Your task to perform on an android device: What is the news today? Image 0: 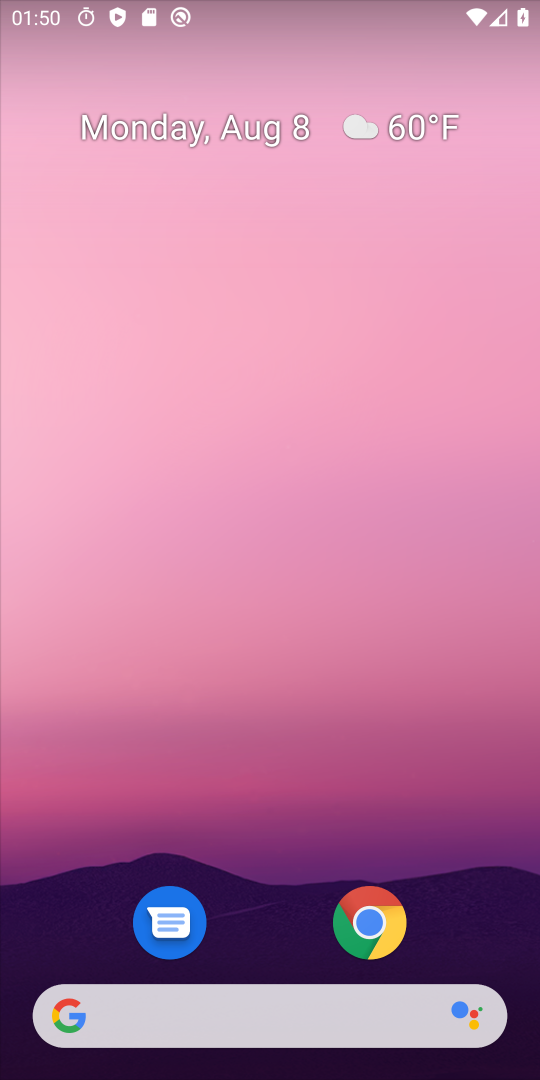
Step 0: drag from (281, 904) to (270, 102)
Your task to perform on an android device: What is the news today? Image 1: 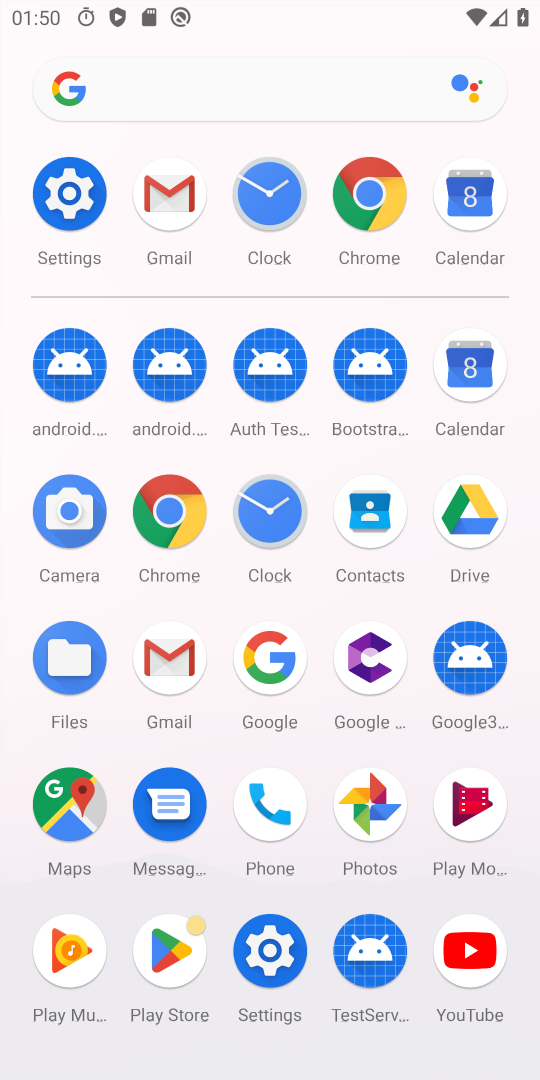
Step 1: click (166, 511)
Your task to perform on an android device: What is the news today? Image 2: 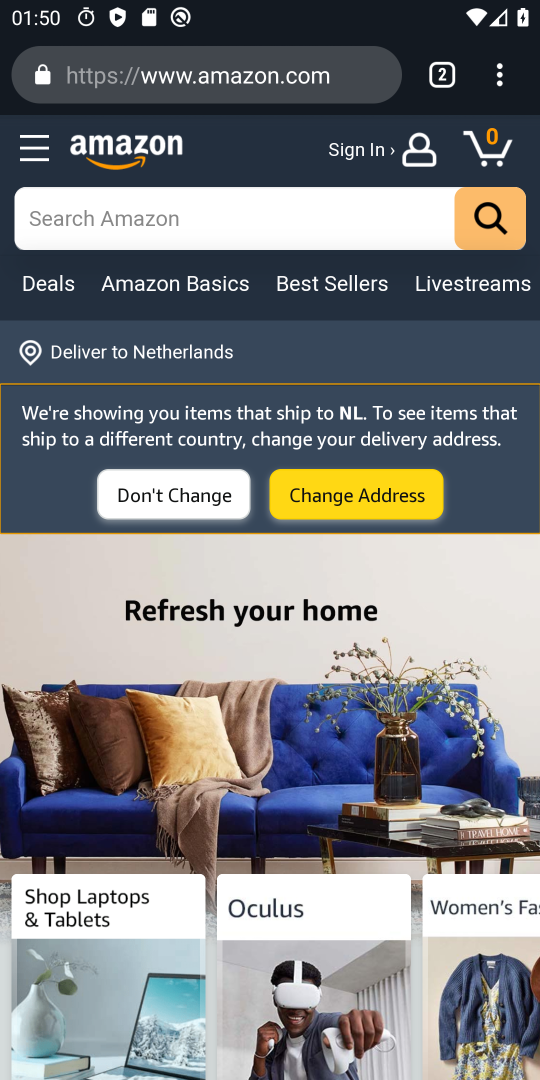
Step 2: click (265, 69)
Your task to perform on an android device: What is the news today? Image 3: 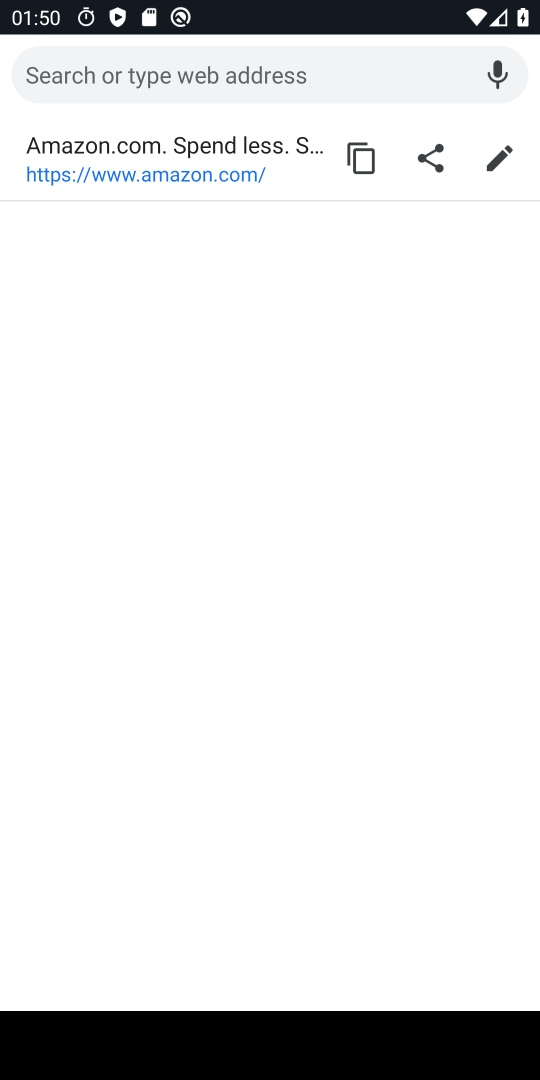
Step 3: type "news"
Your task to perform on an android device: What is the news today? Image 4: 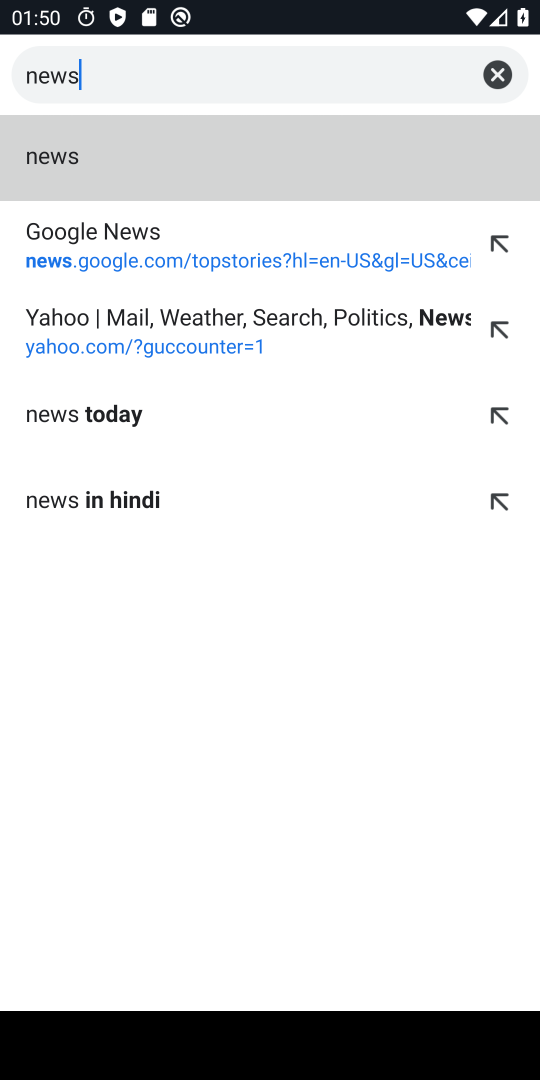
Step 4: click (173, 172)
Your task to perform on an android device: What is the news today? Image 5: 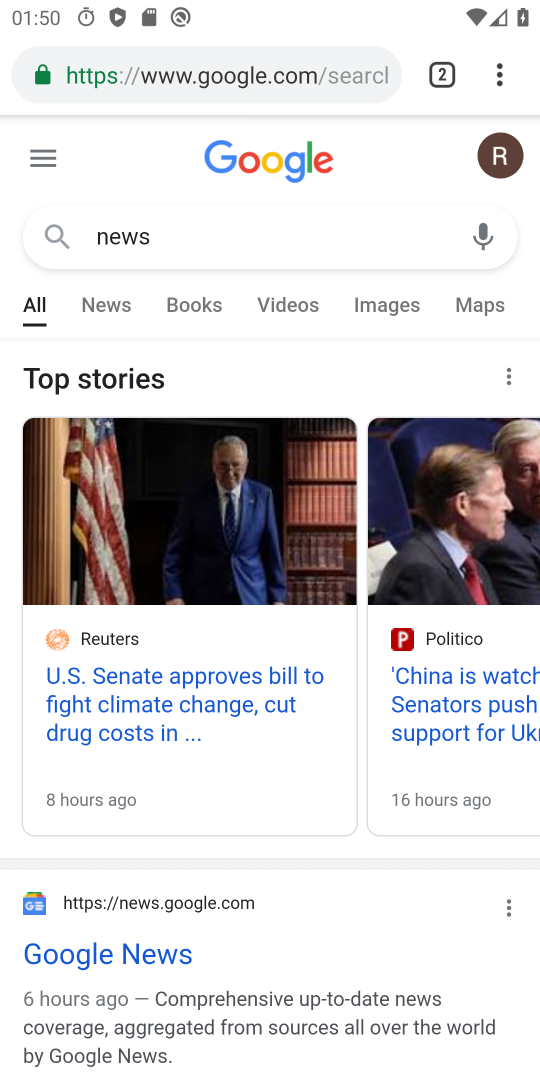
Step 5: click (99, 955)
Your task to perform on an android device: What is the news today? Image 6: 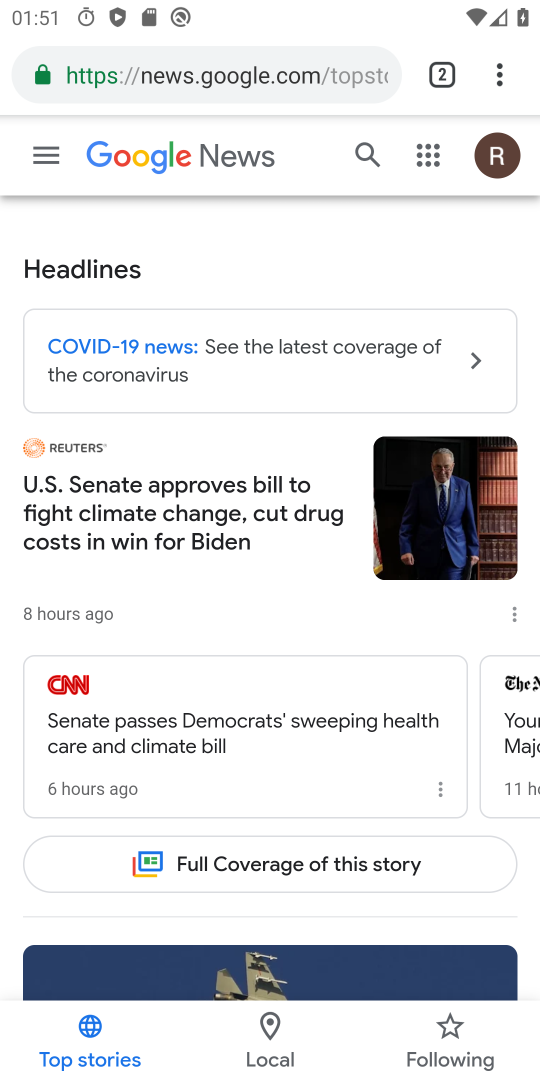
Step 6: task complete